Your task to perform on an android device: Go to Yahoo.com Image 0: 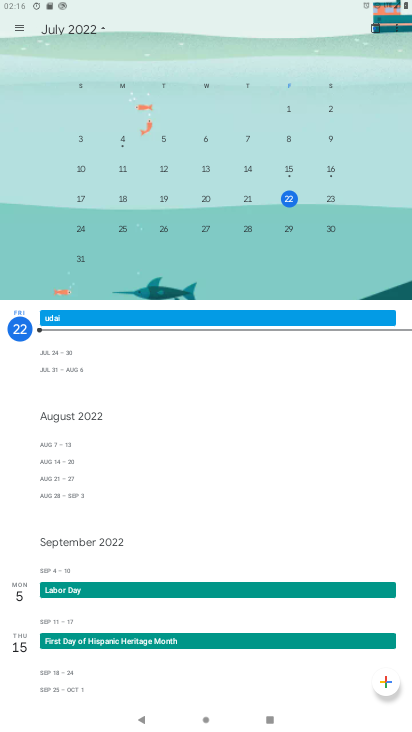
Step 0: press home button
Your task to perform on an android device: Go to Yahoo.com Image 1: 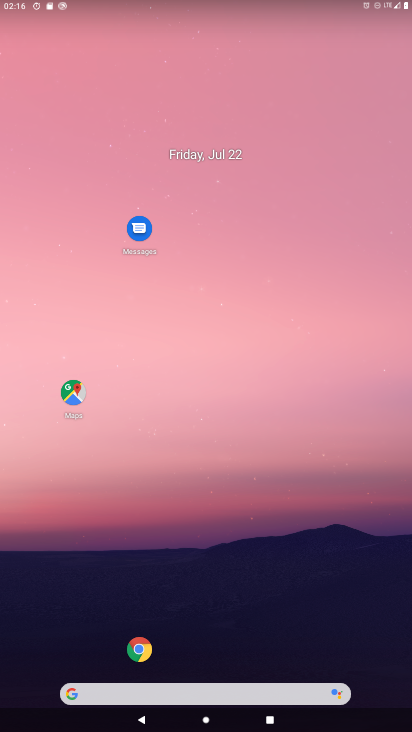
Step 1: click (112, 688)
Your task to perform on an android device: Go to Yahoo.com Image 2: 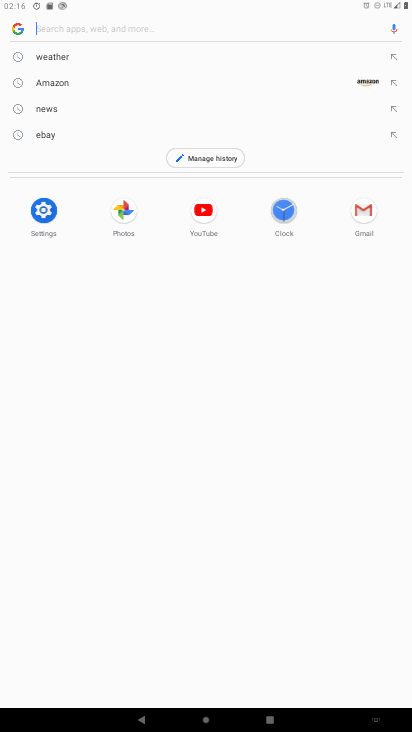
Step 2: type "Yahoo.com"
Your task to perform on an android device: Go to Yahoo.com Image 3: 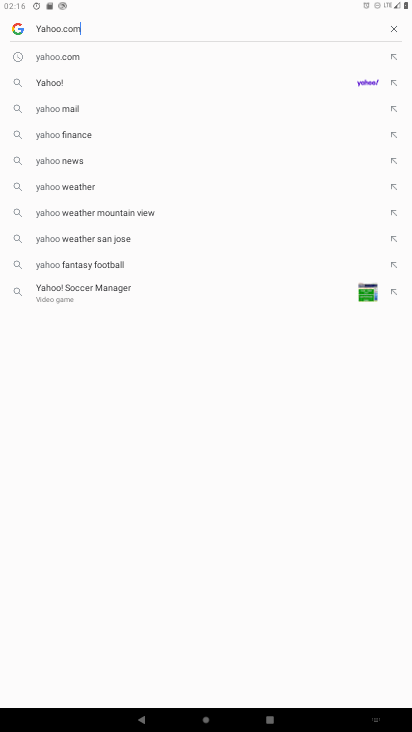
Step 3: type ""
Your task to perform on an android device: Go to Yahoo.com Image 4: 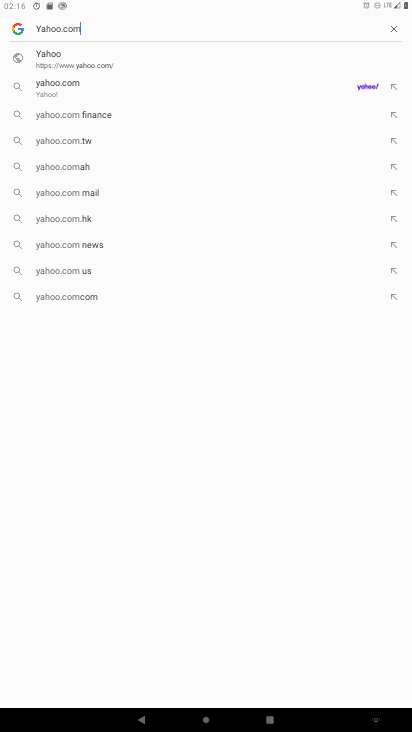
Step 4: click (44, 62)
Your task to perform on an android device: Go to Yahoo.com Image 5: 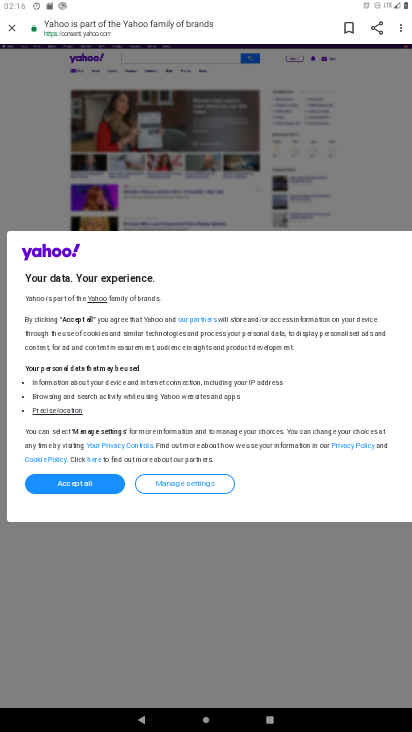
Step 5: task complete